Your task to perform on an android device: Go to Android settings Image 0: 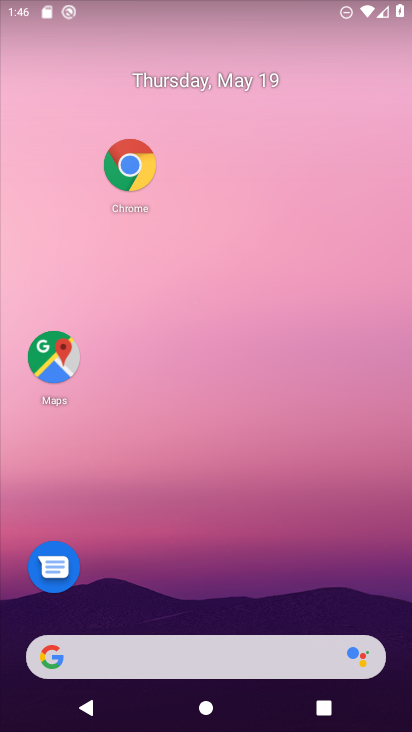
Step 0: drag from (253, 457) to (271, 66)
Your task to perform on an android device: Go to Android settings Image 1: 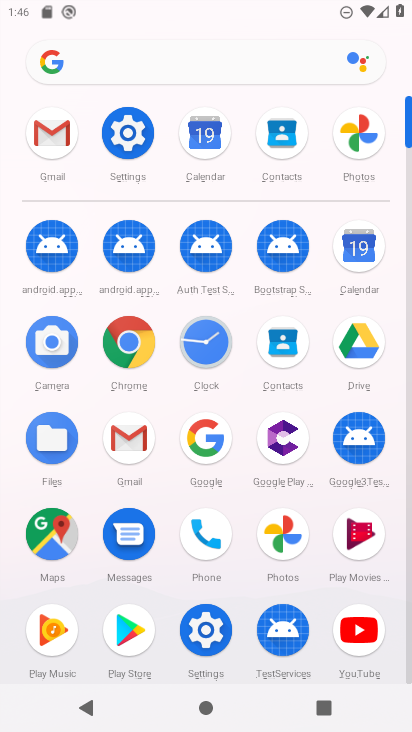
Step 1: click (114, 132)
Your task to perform on an android device: Go to Android settings Image 2: 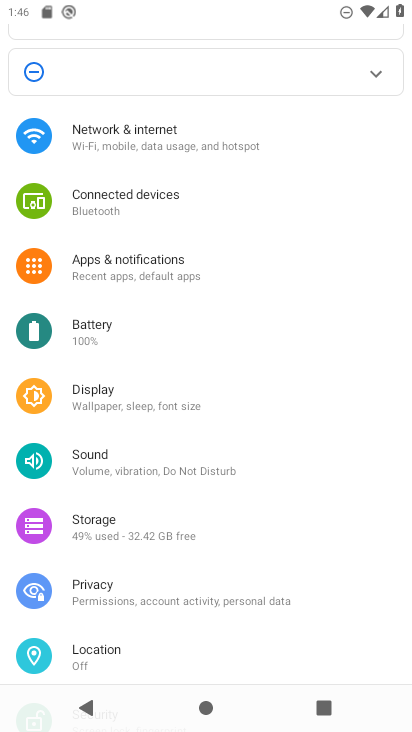
Step 2: task complete